Your task to perform on an android device: Find coffee shops on Maps Image 0: 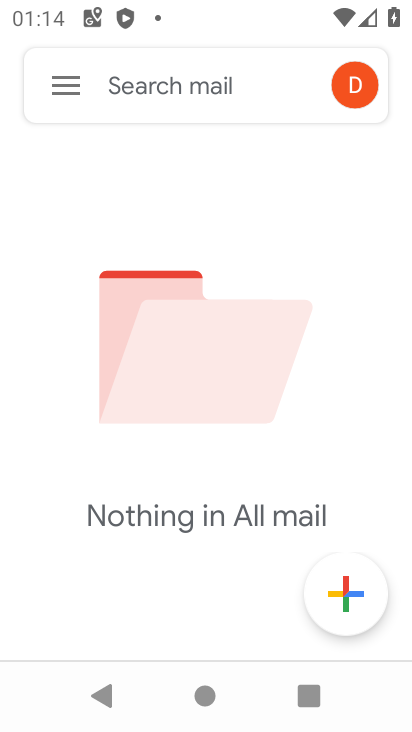
Step 0: press home button
Your task to perform on an android device: Find coffee shops on Maps Image 1: 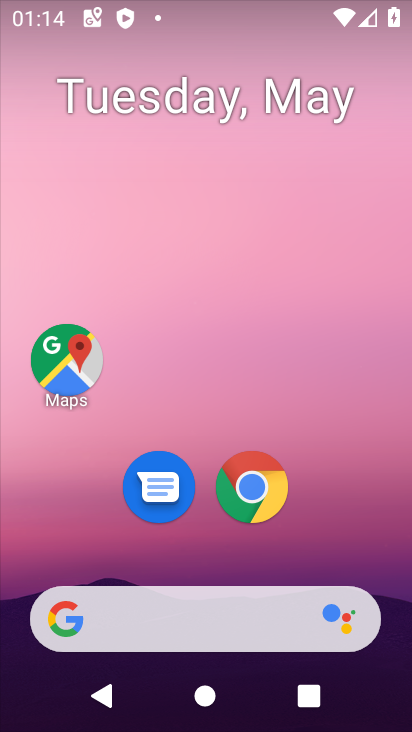
Step 1: click (56, 350)
Your task to perform on an android device: Find coffee shops on Maps Image 2: 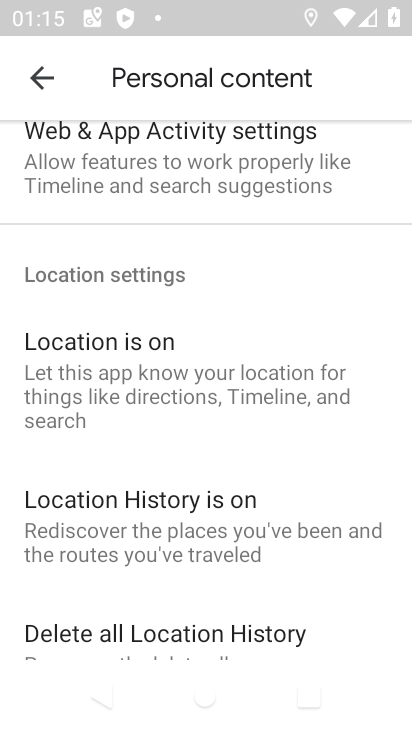
Step 2: click (49, 79)
Your task to perform on an android device: Find coffee shops on Maps Image 3: 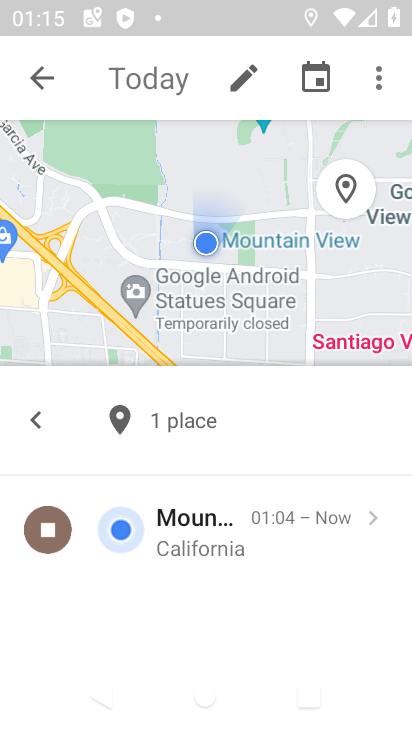
Step 3: click (130, 73)
Your task to perform on an android device: Find coffee shops on Maps Image 4: 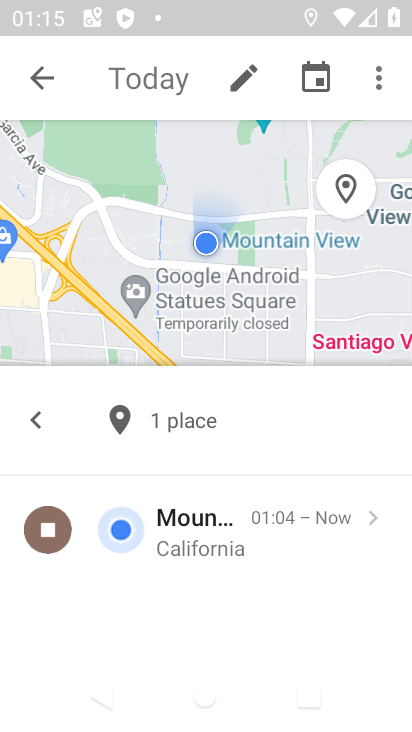
Step 4: drag from (241, 188) to (246, 347)
Your task to perform on an android device: Find coffee shops on Maps Image 5: 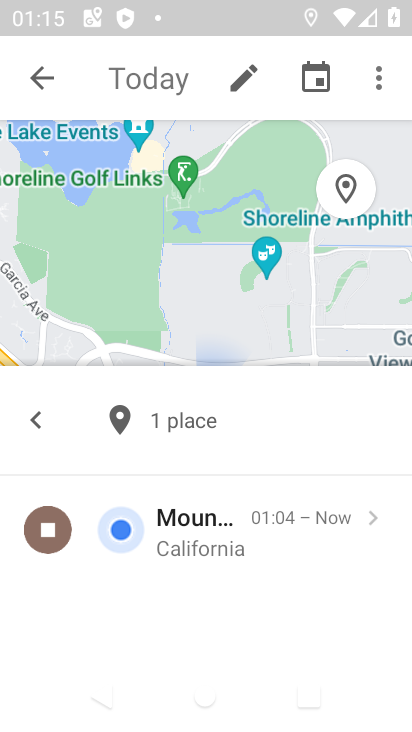
Step 5: drag from (230, 250) to (155, 528)
Your task to perform on an android device: Find coffee shops on Maps Image 6: 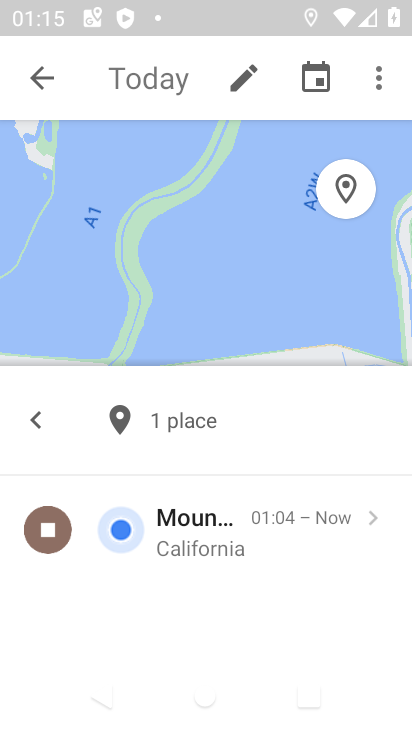
Step 6: click (251, 73)
Your task to perform on an android device: Find coffee shops on Maps Image 7: 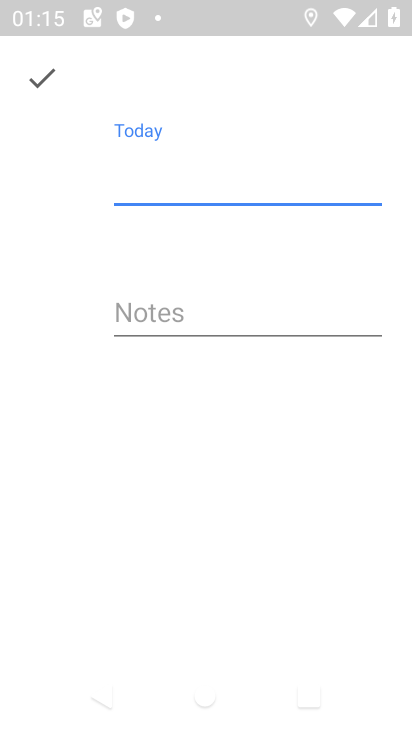
Step 7: press back button
Your task to perform on an android device: Find coffee shops on Maps Image 8: 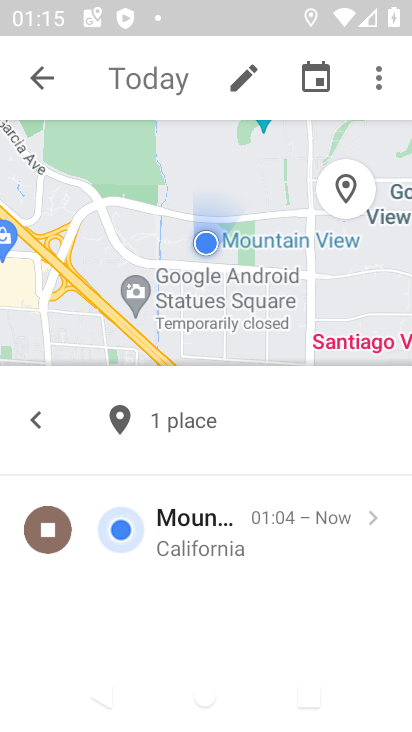
Step 8: click (377, 80)
Your task to perform on an android device: Find coffee shops on Maps Image 9: 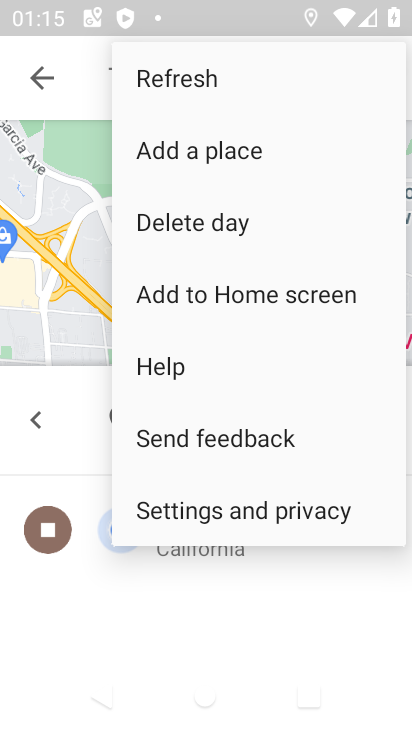
Step 9: click (251, 70)
Your task to perform on an android device: Find coffee shops on Maps Image 10: 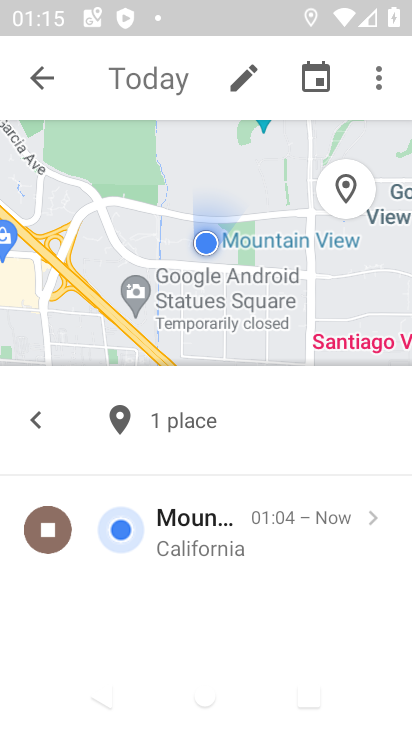
Step 10: drag from (226, 131) to (211, 366)
Your task to perform on an android device: Find coffee shops on Maps Image 11: 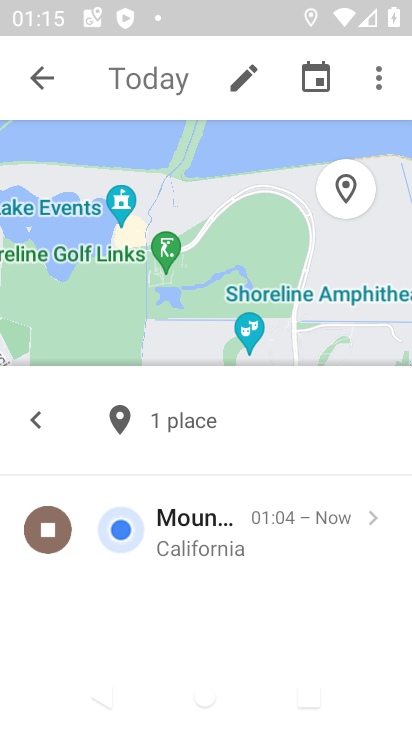
Step 11: drag from (194, 171) to (382, 232)
Your task to perform on an android device: Find coffee shops on Maps Image 12: 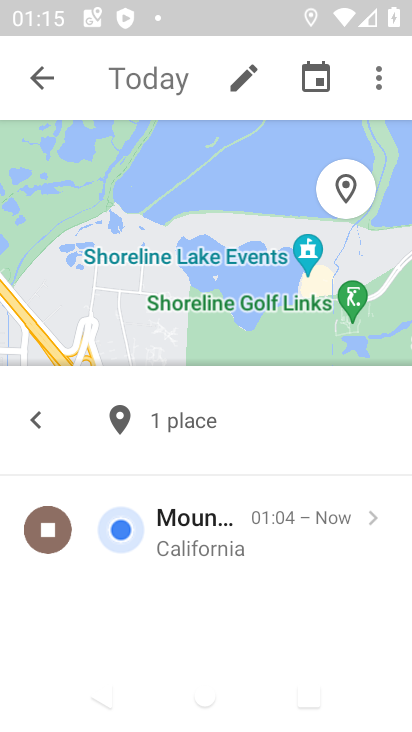
Step 12: click (256, 249)
Your task to perform on an android device: Find coffee shops on Maps Image 13: 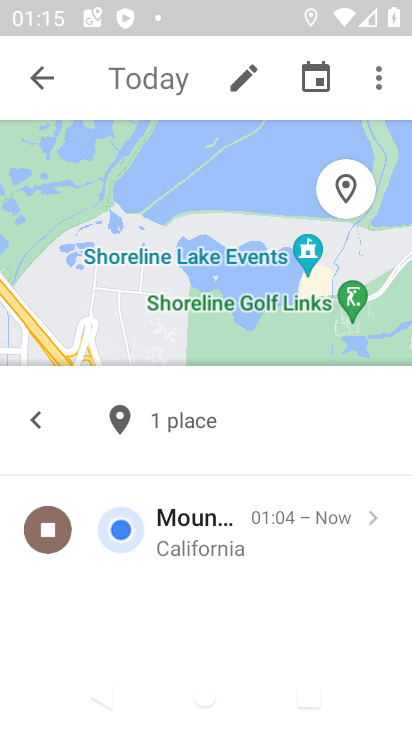
Step 13: drag from (366, 204) to (211, 227)
Your task to perform on an android device: Find coffee shops on Maps Image 14: 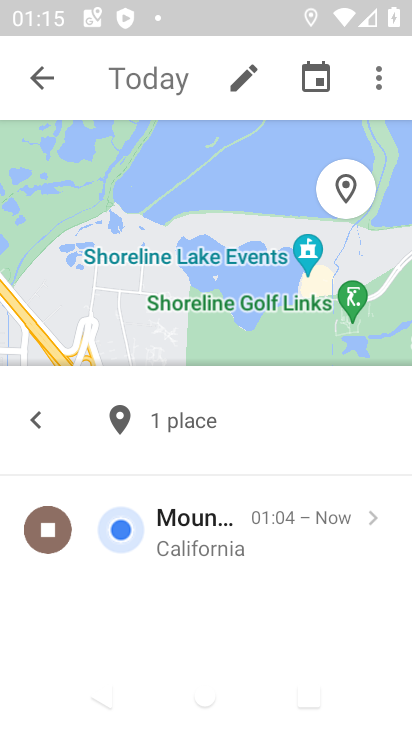
Step 14: drag from (206, 191) to (222, 290)
Your task to perform on an android device: Find coffee shops on Maps Image 15: 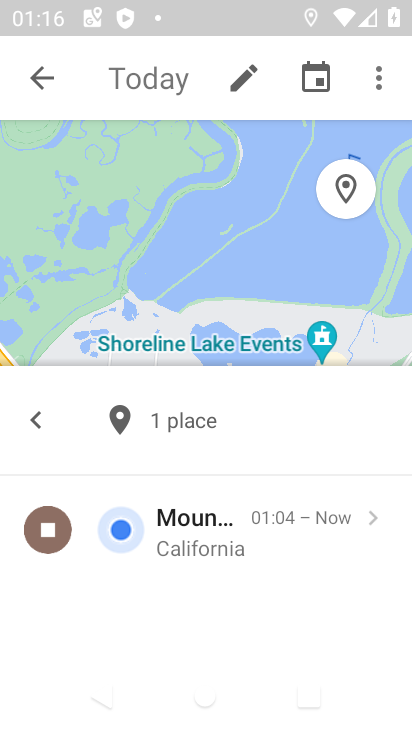
Step 15: click (51, 72)
Your task to perform on an android device: Find coffee shops on Maps Image 16: 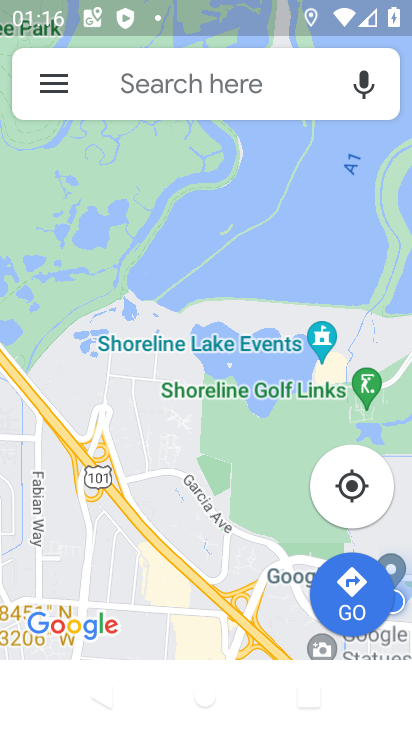
Step 16: click (159, 84)
Your task to perform on an android device: Find coffee shops on Maps Image 17: 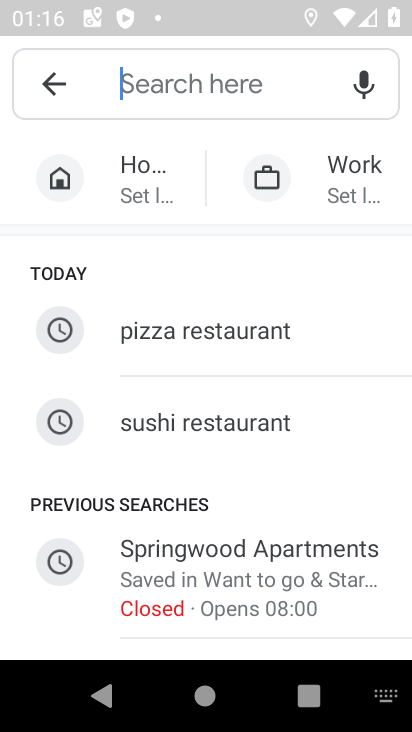
Step 17: type "coffee shop"
Your task to perform on an android device: Find coffee shops on Maps Image 18: 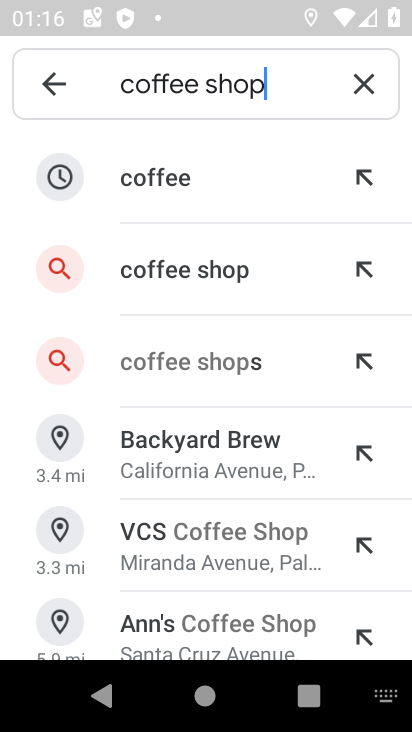
Step 18: click (275, 254)
Your task to perform on an android device: Find coffee shops on Maps Image 19: 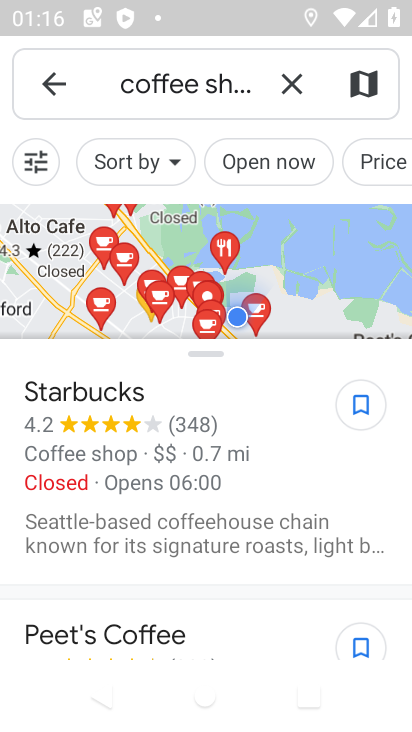
Step 19: task complete